Your task to perform on an android device: toggle data saver in the chrome app Image 0: 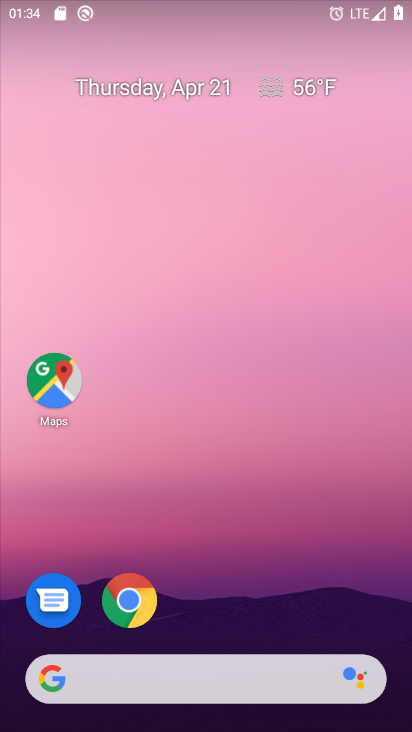
Step 0: click (146, 599)
Your task to perform on an android device: toggle data saver in the chrome app Image 1: 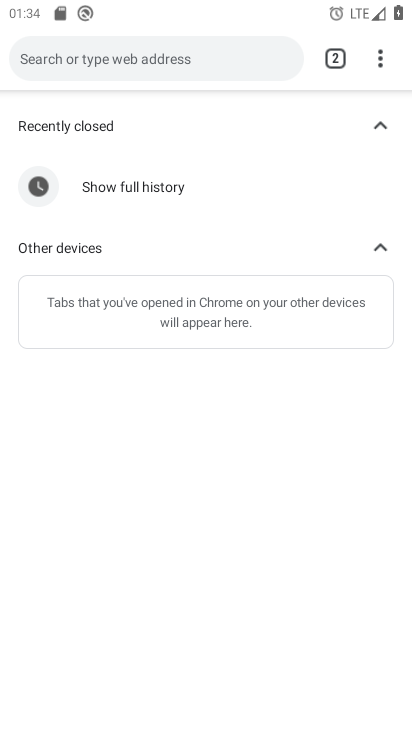
Step 1: click (376, 54)
Your task to perform on an android device: toggle data saver in the chrome app Image 2: 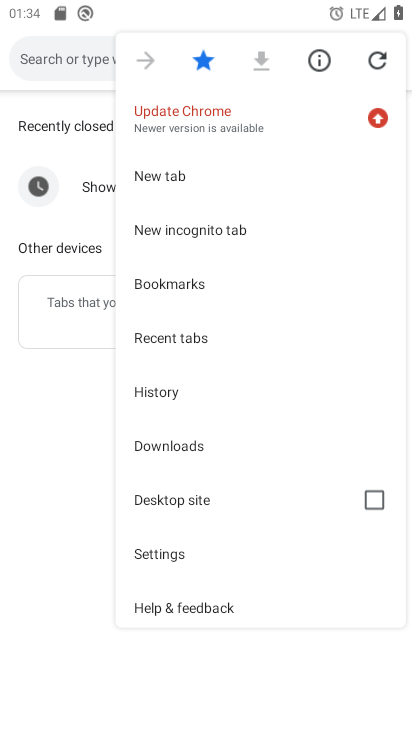
Step 2: click (181, 549)
Your task to perform on an android device: toggle data saver in the chrome app Image 3: 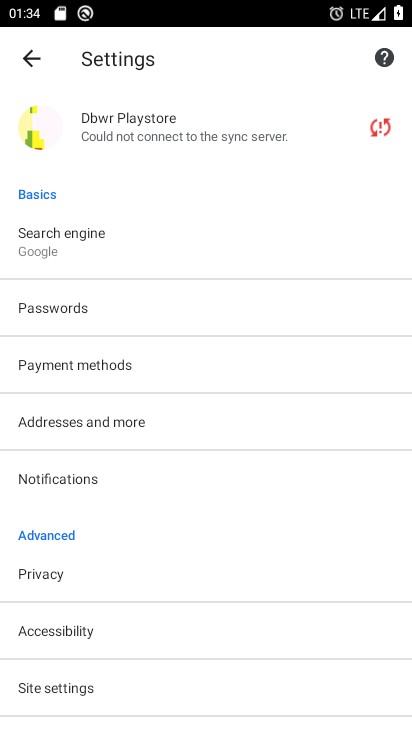
Step 3: drag from (170, 667) to (185, 532)
Your task to perform on an android device: toggle data saver in the chrome app Image 4: 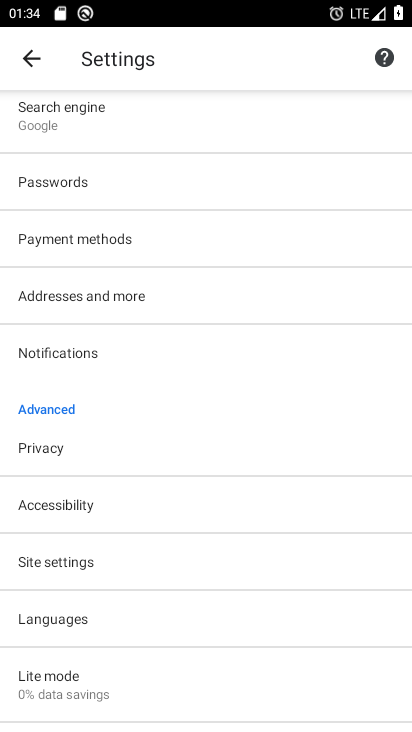
Step 4: click (155, 679)
Your task to perform on an android device: toggle data saver in the chrome app Image 5: 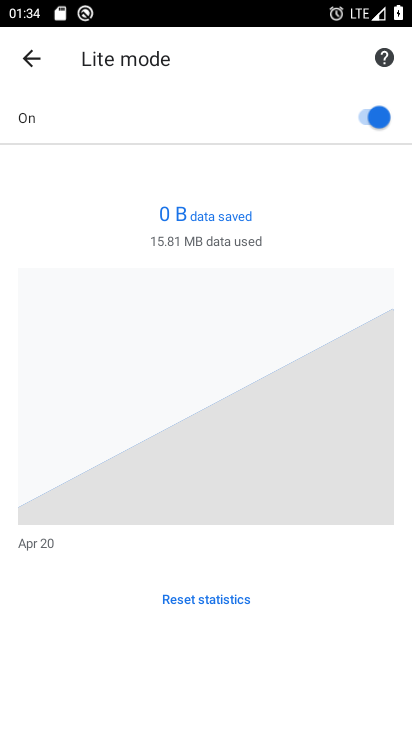
Step 5: click (372, 119)
Your task to perform on an android device: toggle data saver in the chrome app Image 6: 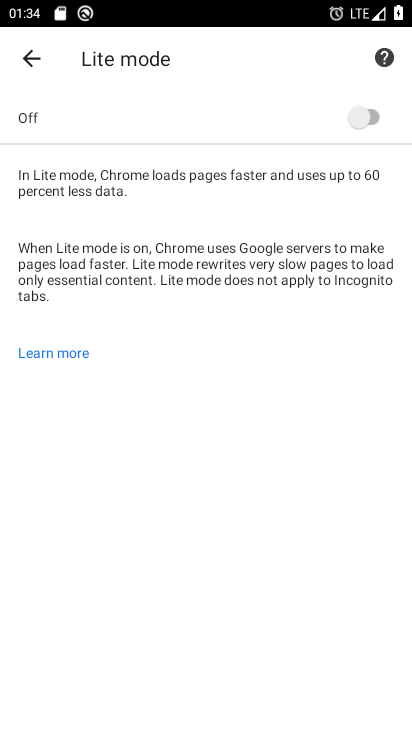
Step 6: task complete